Your task to perform on an android device: delete the emails in spam in the gmail app Image 0: 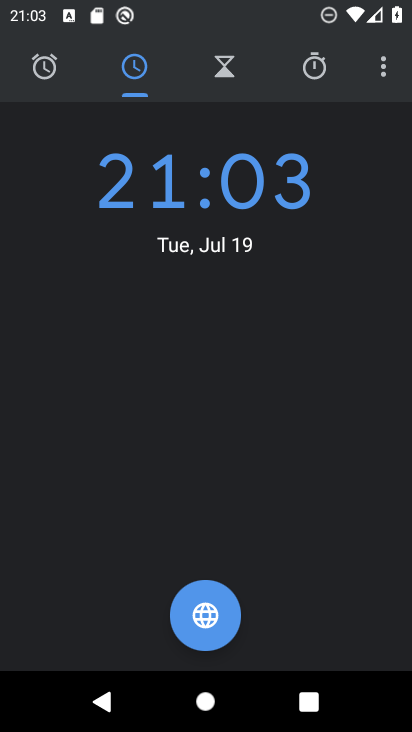
Step 0: press home button
Your task to perform on an android device: delete the emails in spam in the gmail app Image 1: 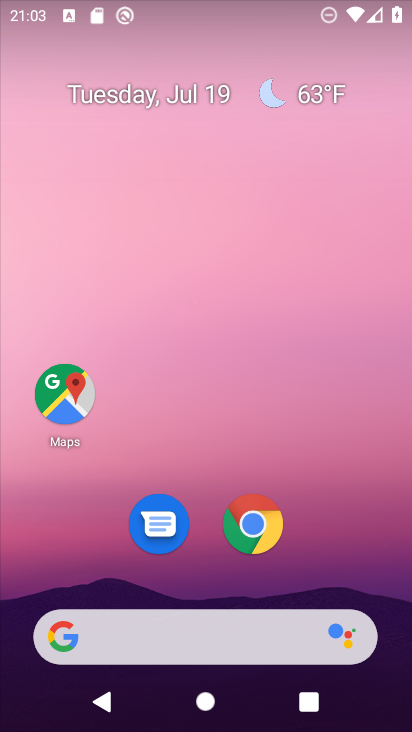
Step 1: drag from (325, 545) to (253, 44)
Your task to perform on an android device: delete the emails in spam in the gmail app Image 2: 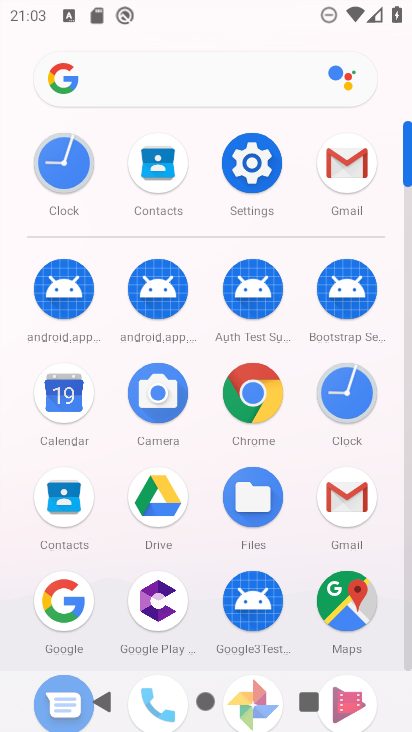
Step 2: click (351, 168)
Your task to perform on an android device: delete the emails in spam in the gmail app Image 3: 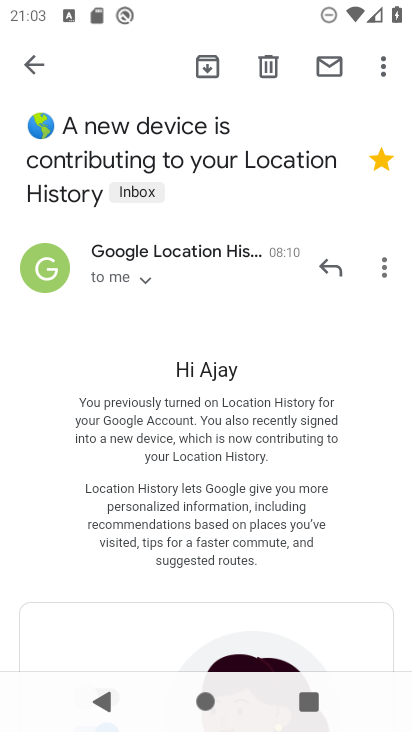
Step 3: click (35, 60)
Your task to perform on an android device: delete the emails in spam in the gmail app Image 4: 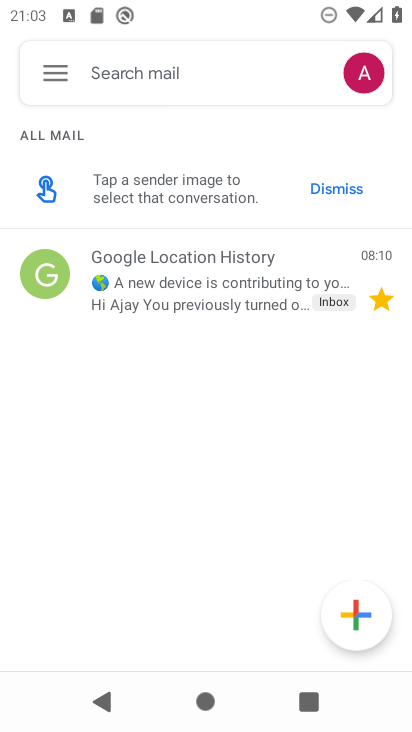
Step 4: click (54, 78)
Your task to perform on an android device: delete the emails in spam in the gmail app Image 5: 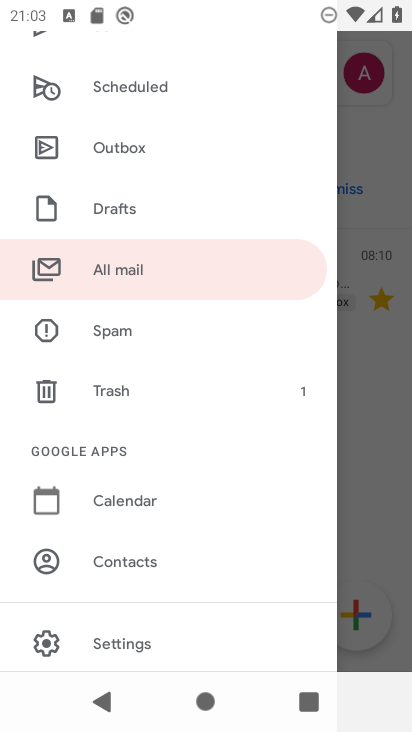
Step 5: click (105, 321)
Your task to perform on an android device: delete the emails in spam in the gmail app Image 6: 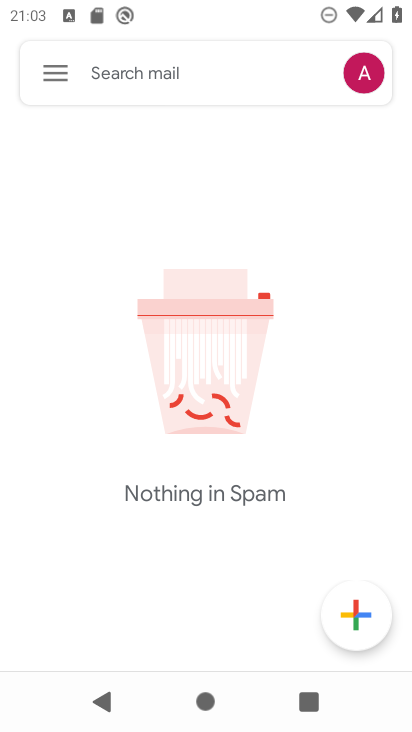
Step 6: task complete